Your task to perform on an android device: set an alarm Image 0: 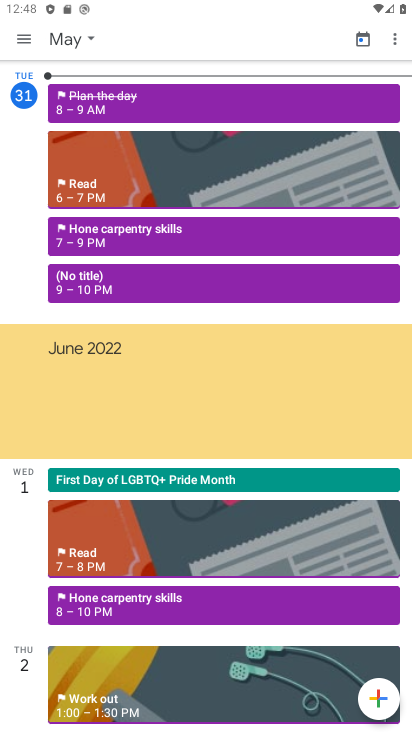
Step 0: press home button
Your task to perform on an android device: set an alarm Image 1: 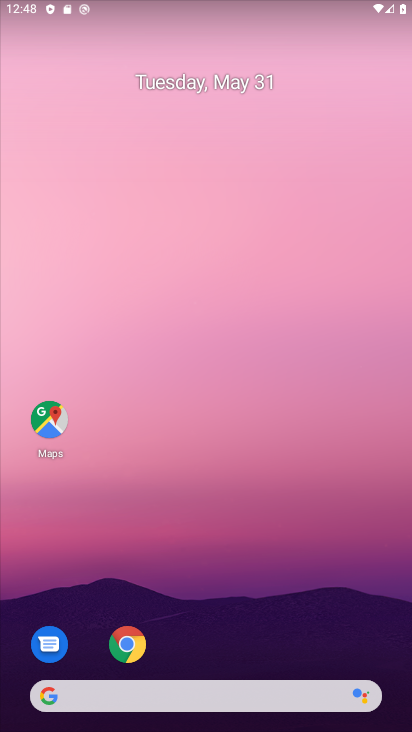
Step 1: drag from (226, 666) to (214, 210)
Your task to perform on an android device: set an alarm Image 2: 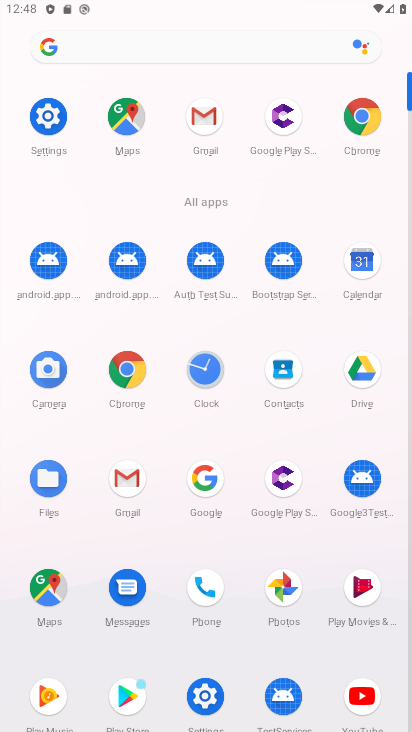
Step 2: click (202, 369)
Your task to perform on an android device: set an alarm Image 3: 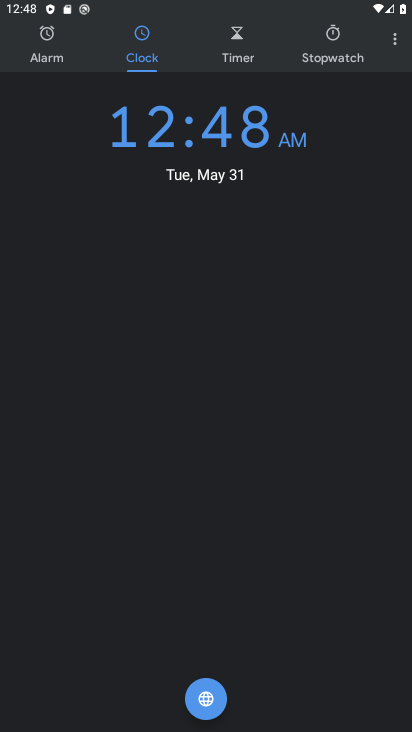
Step 3: click (37, 58)
Your task to perform on an android device: set an alarm Image 4: 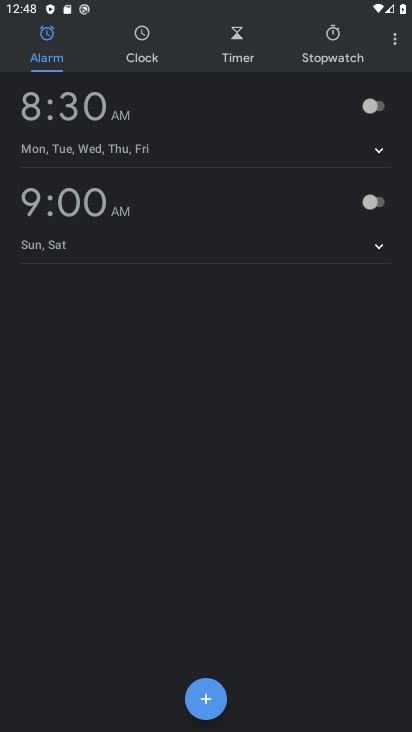
Step 4: click (383, 107)
Your task to perform on an android device: set an alarm Image 5: 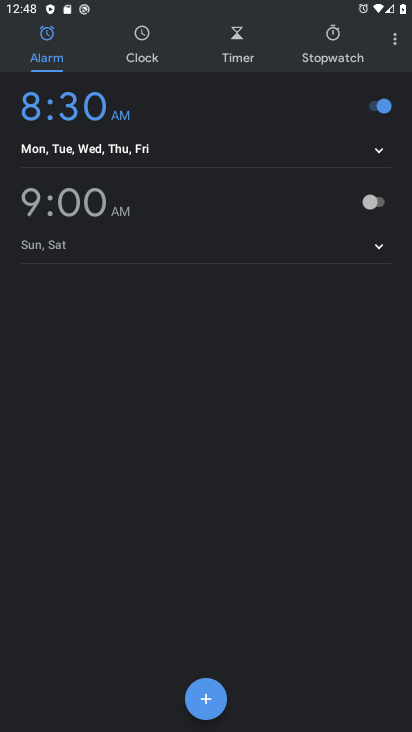
Step 5: task complete